Your task to perform on an android device: show emergency info Image 0: 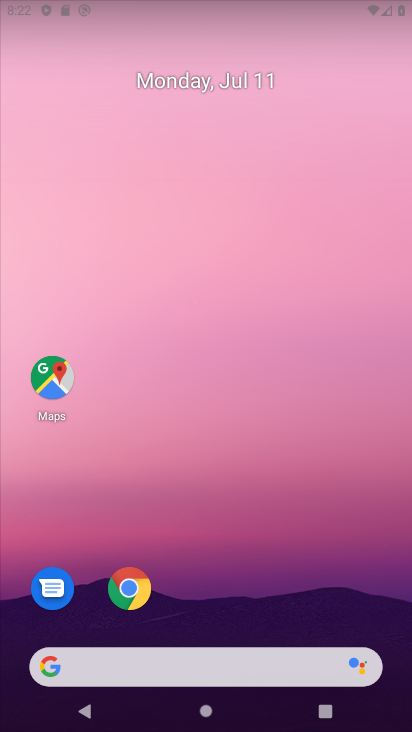
Step 0: drag from (143, 672) to (410, 54)
Your task to perform on an android device: show emergency info Image 1: 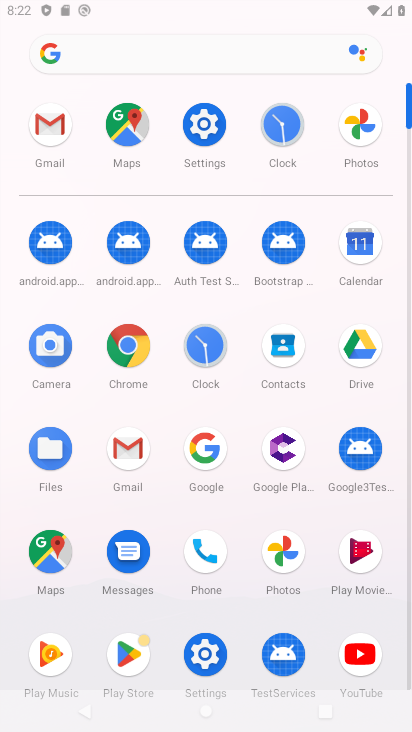
Step 1: click (216, 127)
Your task to perform on an android device: show emergency info Image 2: 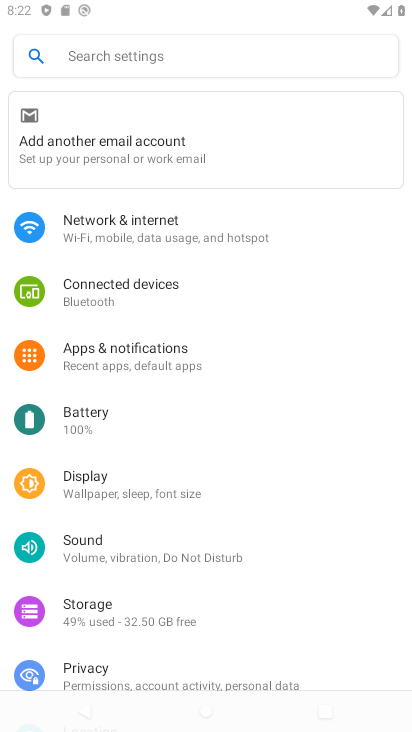
Step 2: drag from (275, 601) to (260, 62)
Your task to perform on an android device: show emergency info Image 3: 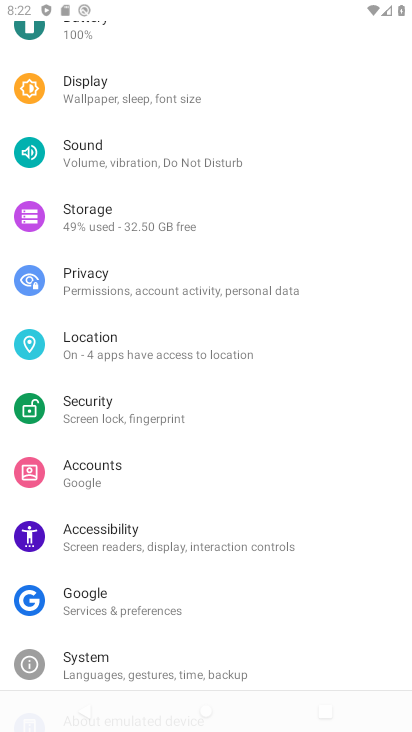
Step 3: drag from (229, 662) to (251, 176)
Your task to perform on an android device: show emergency info Image 4: 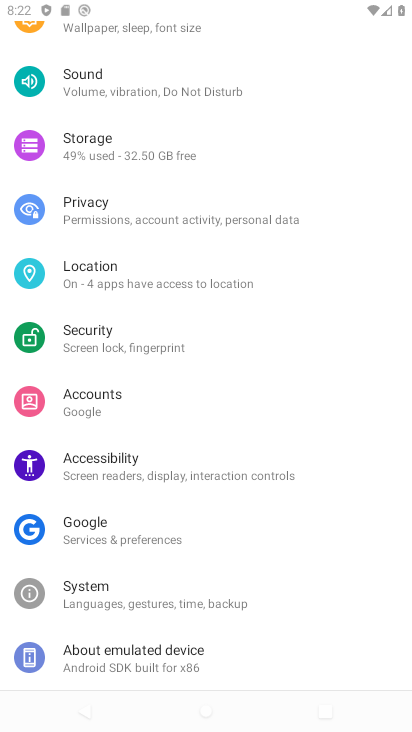
Step 4: click (183, 656)
Your task to perform on an android device: show emergency info Image 5: 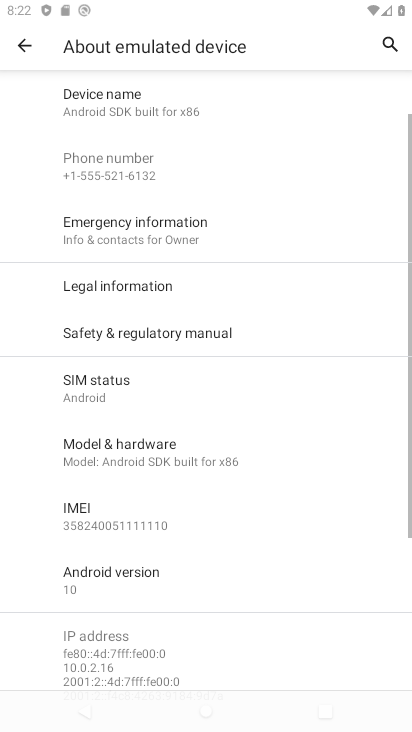
Step 5: click (213, 241)
Your task to perform on an android device: show emergency info Image 6: 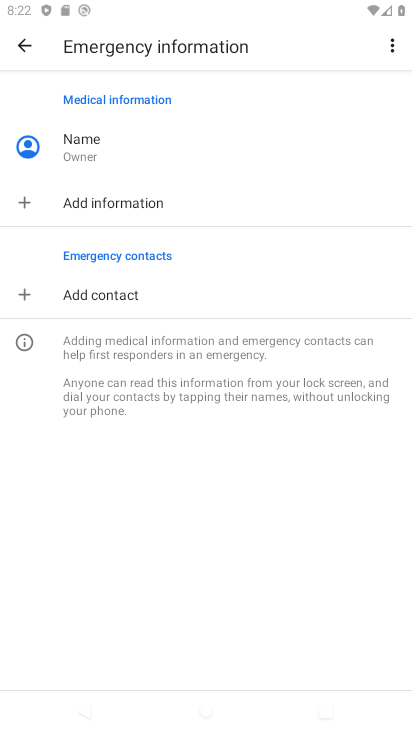
Step 6: task complete